Your task to perform on an android device: Toggle the flashlight Image 0: 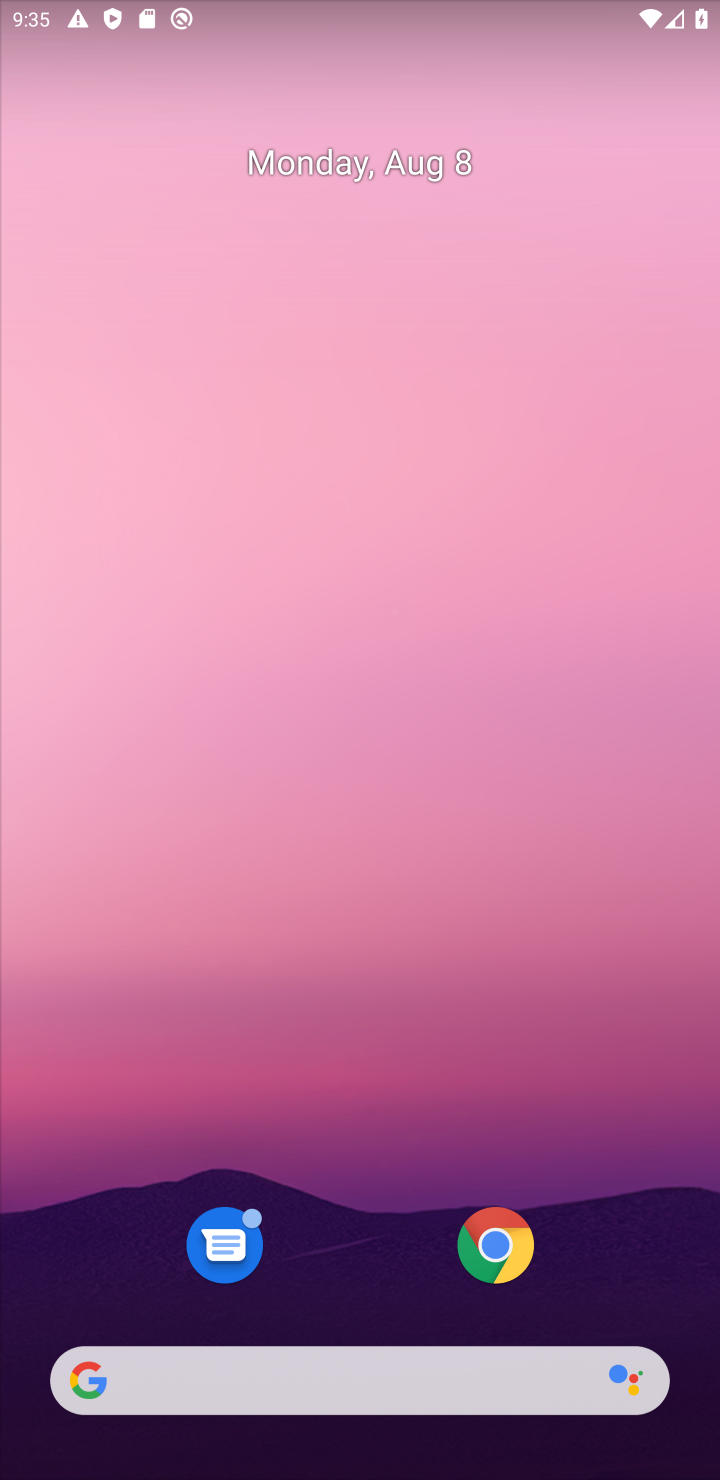
Step 0: drag from (341, 1129) to (430, 59)
Your task to perform on an android device: Toggle the flashlight Image 1: 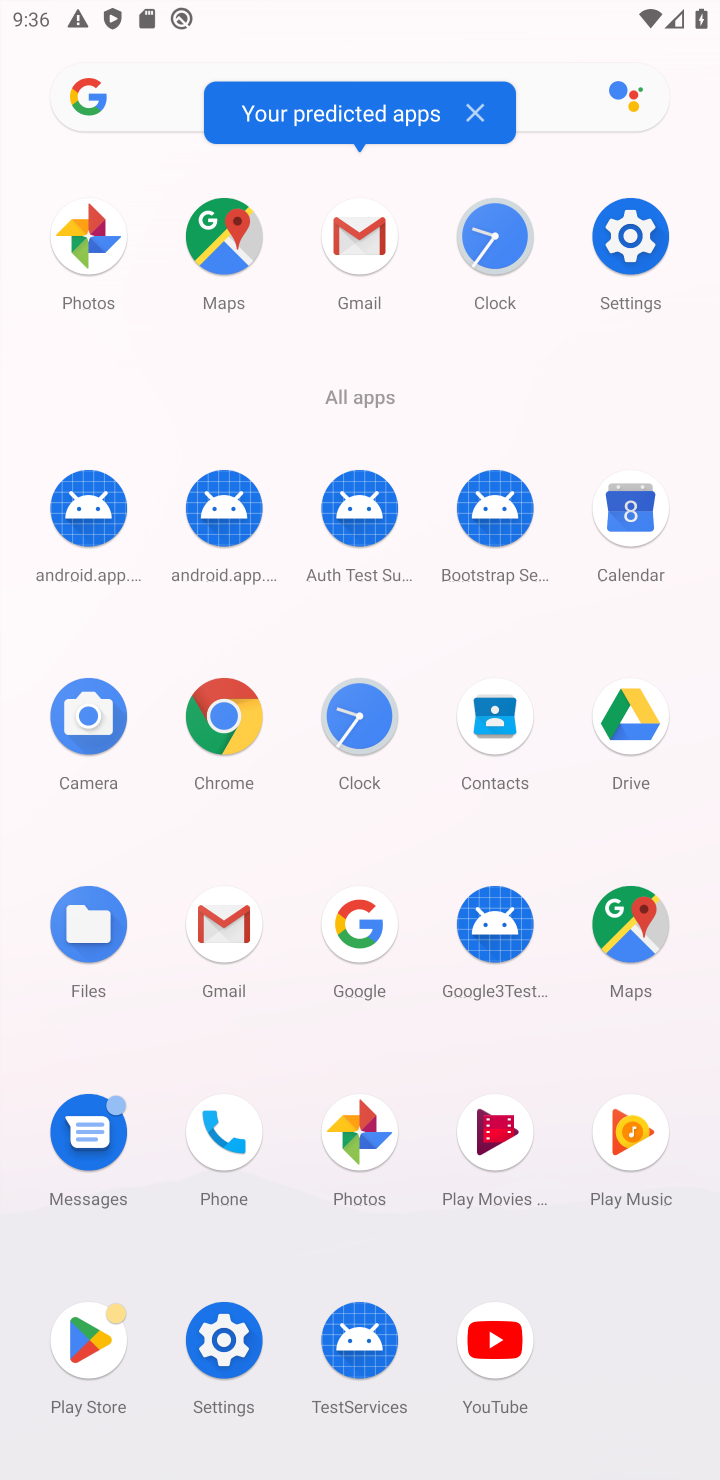
Step 1: click (635, 255)
Your task to perform on an android device: Toggle the flashlight Image 2: 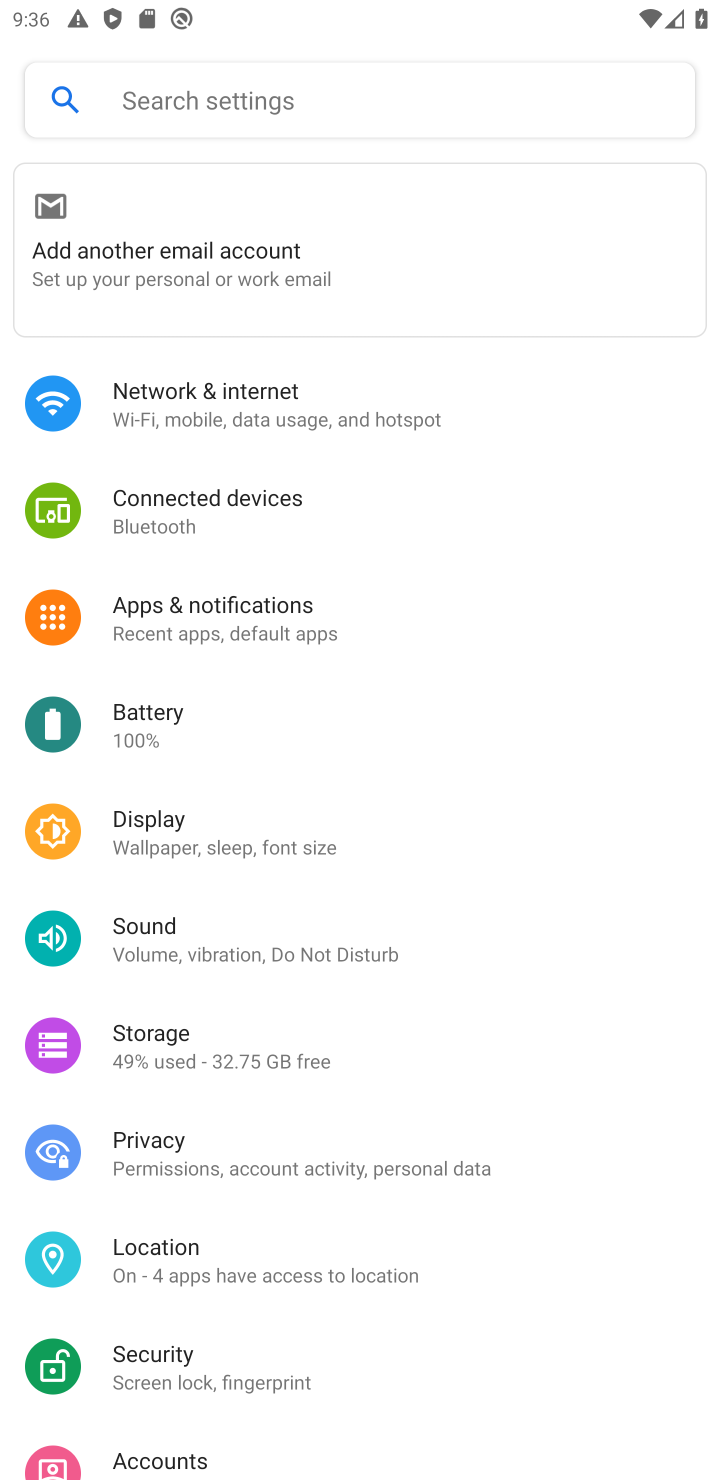
Step 2: click (159, 820)
Your task to perform on an android device: Toggle the flashlight Image 3: 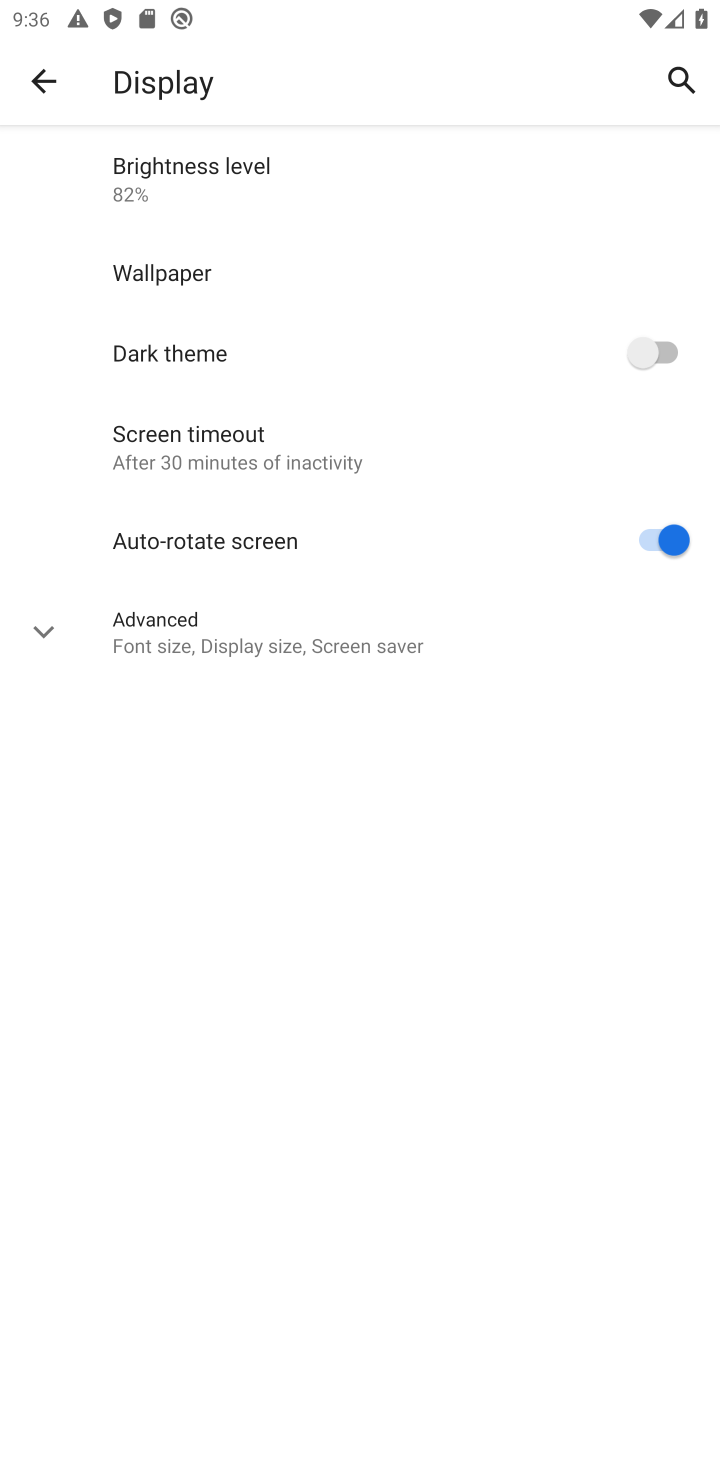
Step 3: task complete